Your task to perform on an android device: turn off sleep mode Image 0: 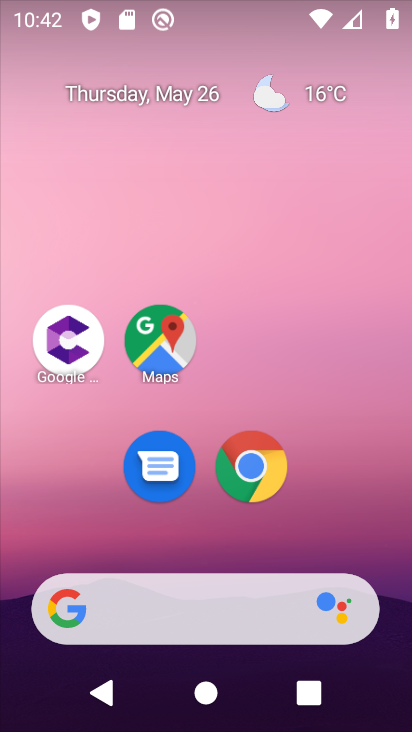
Step 0: drag from (191, 152) to (161, 84)
Your task to perform on an android device: turn off sleep mode Image 1: 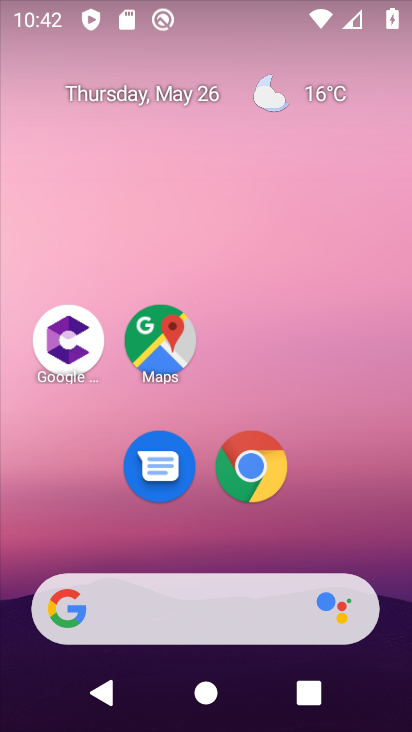
Step 1: drag from (305, 506) to (198, 113)
Your task to perform on an android device: turn off sleep mode Image 2: 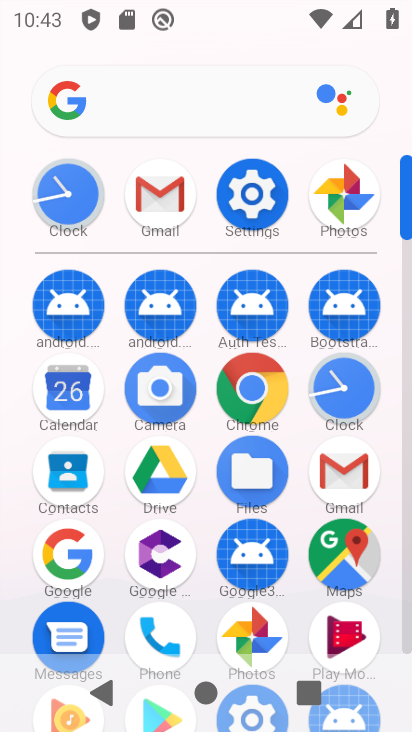
Step 2: click (249, 193)
Your task to perform on an android device: turn off sleep mode Image 3: 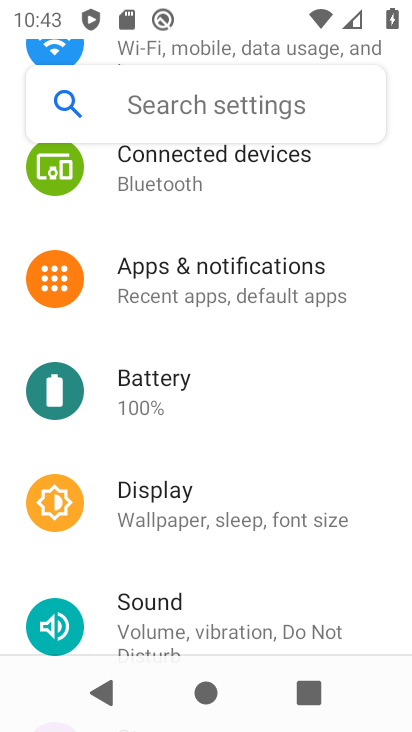
Step 3: click (249, 193)
Your task to perform on an android device: turn off sleep mode Image 4: 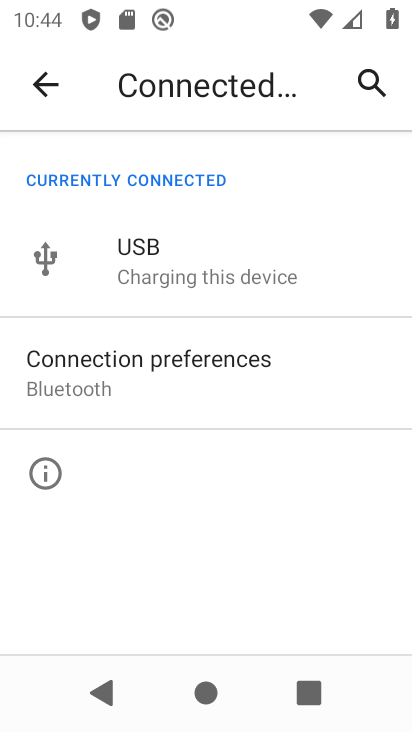
Step 4: press home button
Your task to perform on an android device: turn off sleep mode Image 5: 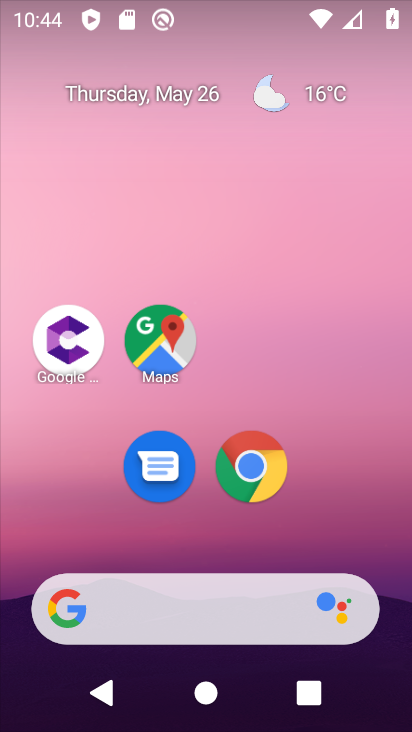
Step 5: click (225, 46)
Your task to perform on an android device: turn off sleep mode Image 6: 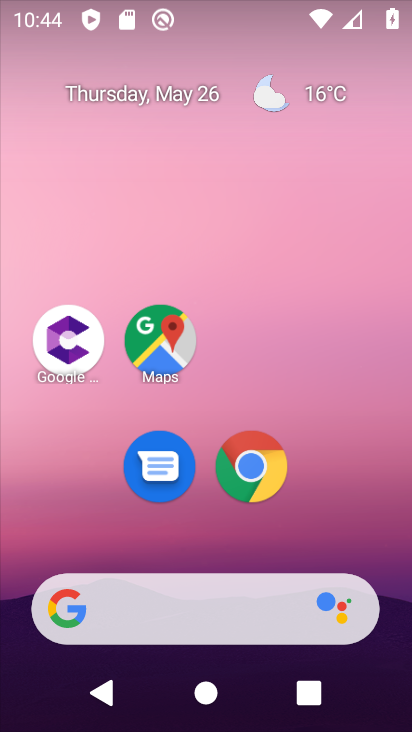
Step 6: drag from (342, 525) to (292, 46)
Your task to perform on an android device: turn off sleep mode Image 7: 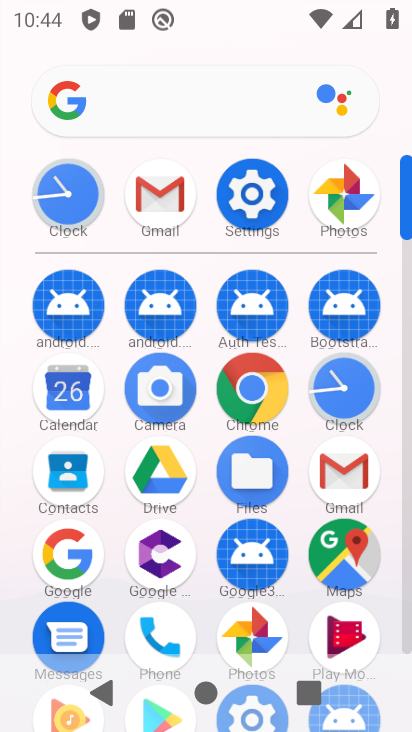
Step 7: click (254, 197)
Your task to perform on an android device: turn off sleep mode Image 8: 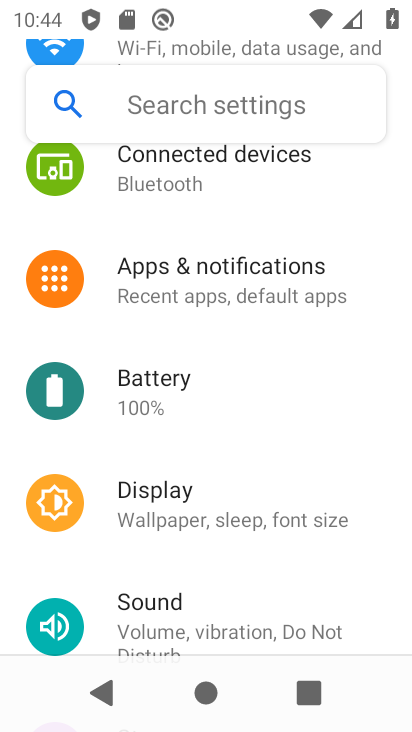
Step 8: click (137, 500)
Your task to perform on an android device: turn off sleep mode Image 9: 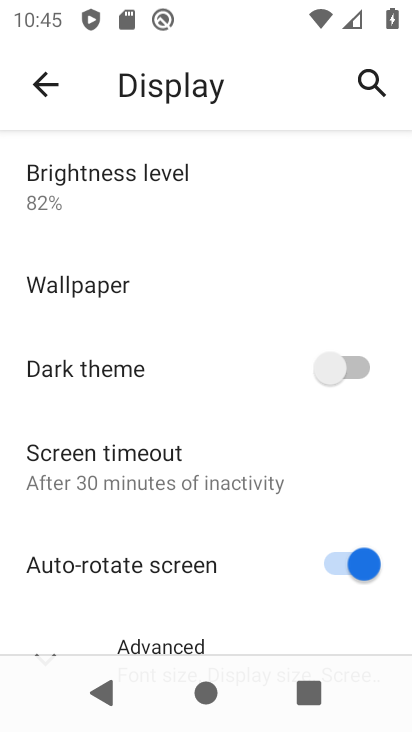
Step 9: task complete